Your task to perform on an android device: make emails show in primary in the gmail app Image 0: 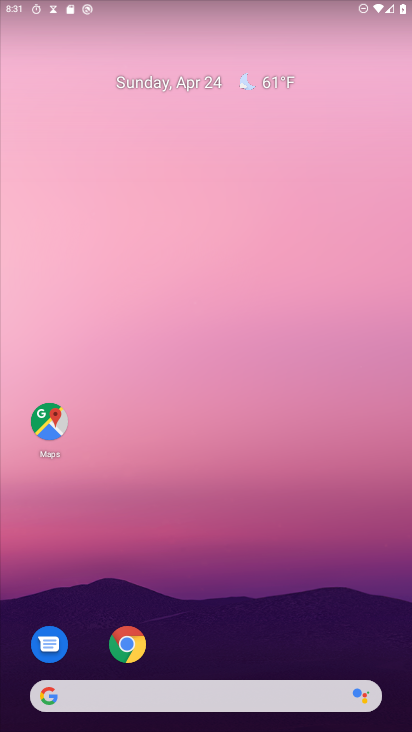
Step 0: drag from (214, 685) to (227, 133)
Your task to perform on an android device: make emails show in primary in the gmail app Image 1: 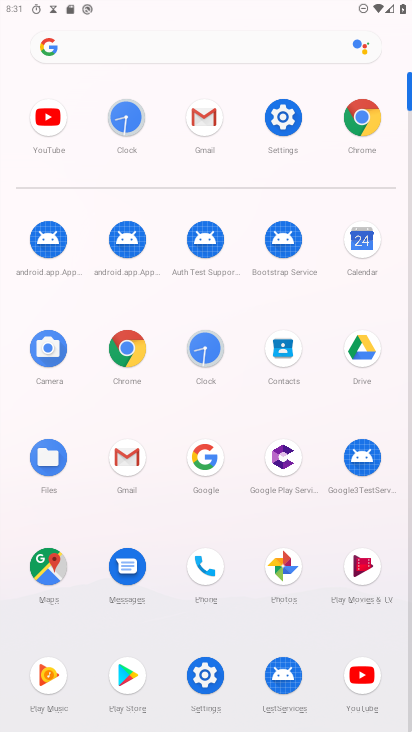
Step 1: click (136, 471)
Your task to perform on an android device: make emails show in primary in the gmail app Image 2: 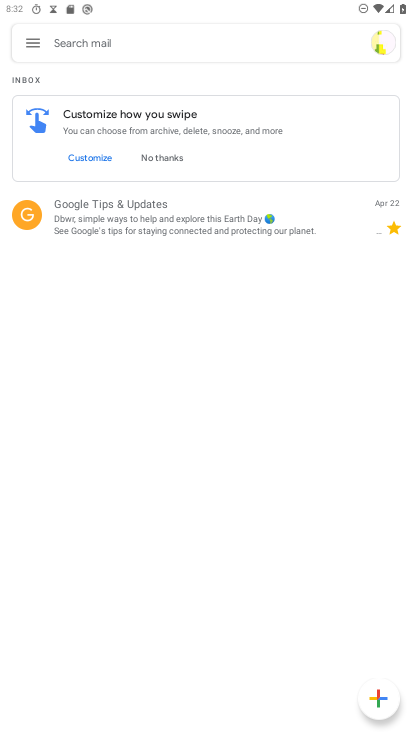
Step 2: click (31, 43)
Your task to perform on an android device: make emails show in primary in the gmail app Image 3: 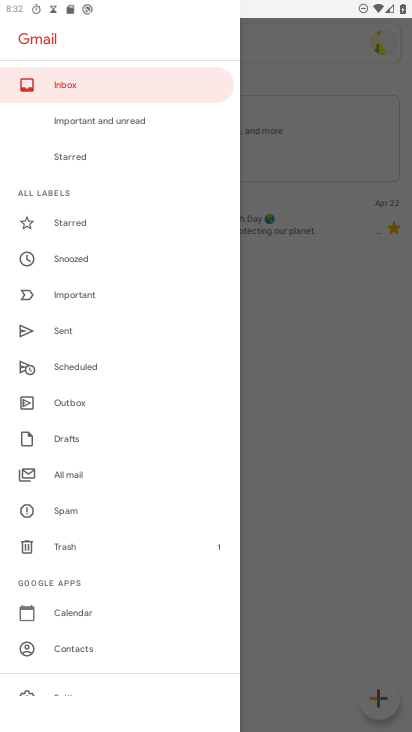
Step 3: drag from (76, 656) to (100, 152)
Your task to perform on an android device: make emails show in primary in the gmail app Image 4: 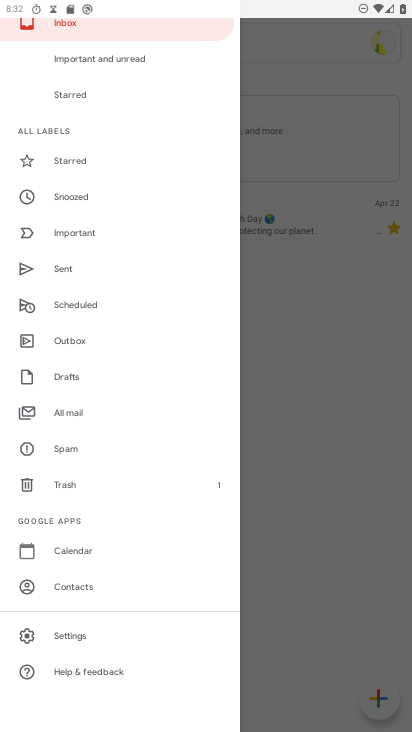
Step 4: click (59, 632)
Your task to perform on an android device: make emails show in primary in the gmail app Image 5: 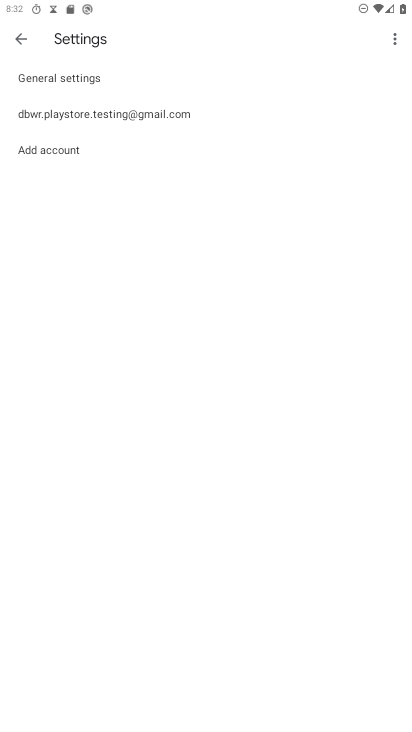
Step 5: click (118, 117)
Your task to perform on an android device: make emails show in primary in the gmail app Image 6: 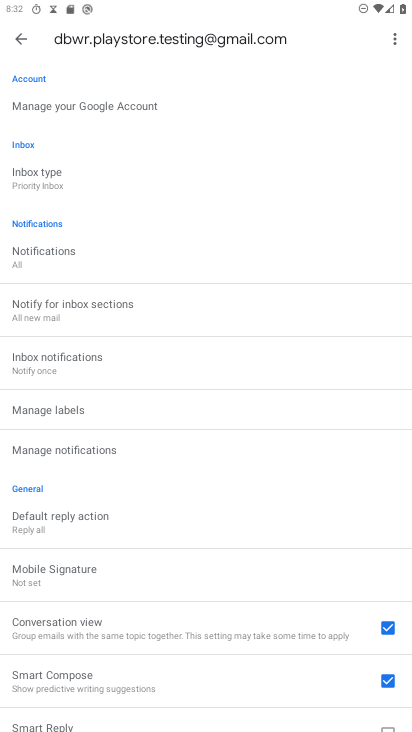
Step 6: click (64, 176)
Your task to perform on an android device: make emails show in primary in the gmail app Image 7: 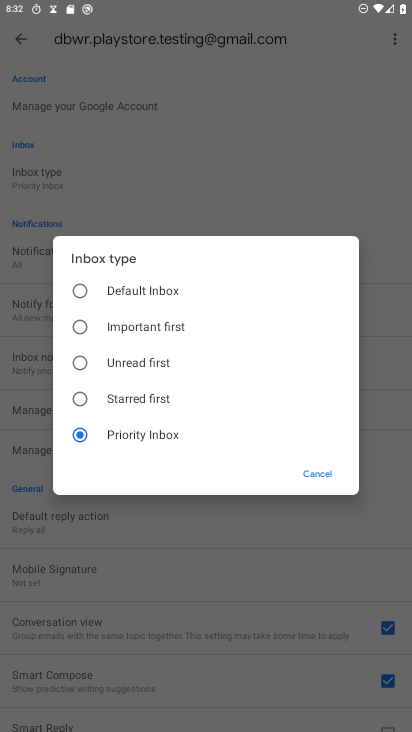
Step 7: click (116, 286)
Your task to perform on an android device: make emails show in primary in the gmail app Image 8: 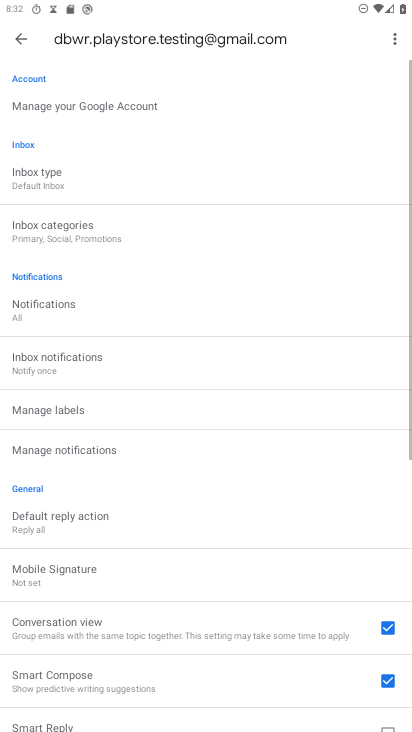
Step 8: click (67, 237)
Your task to perform on an android device: make emails show in primary in the gmail app Image 9: 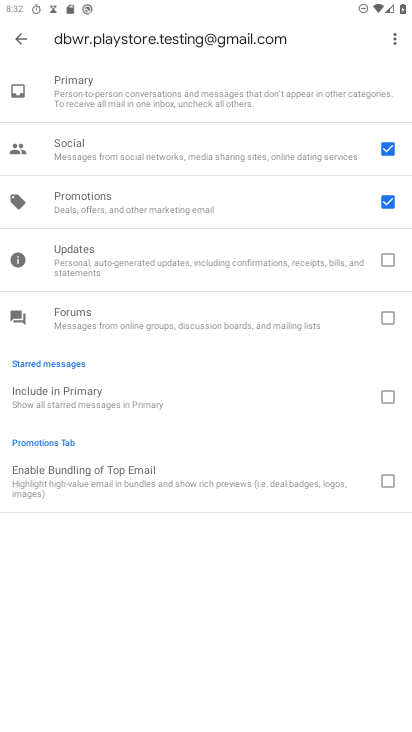
Step 9: click (388, 208)
Your task to perform on an android device: make emails show in primary in the gmail app Image 10: 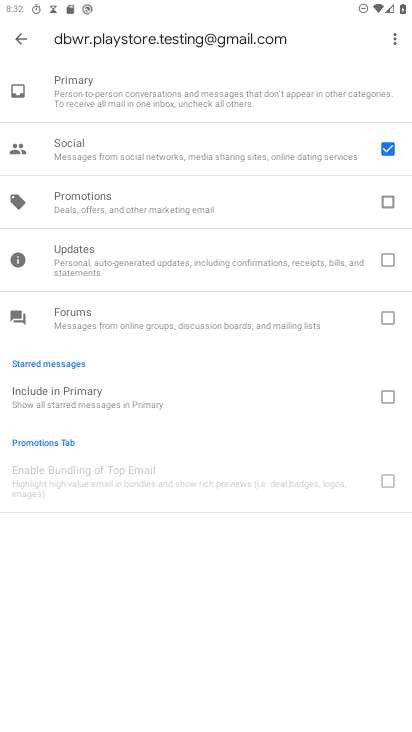
Step 10: click (385, 139)
Your task to perform on an android device: make emails show in primary in the gmail app Image 11: 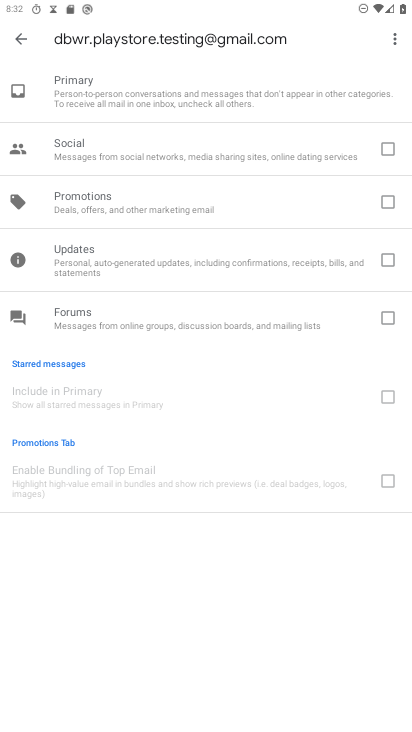
Step 11: click (211, 124)
Your task to perform on an android device: make emails show in primary in the gmail app Image 12: 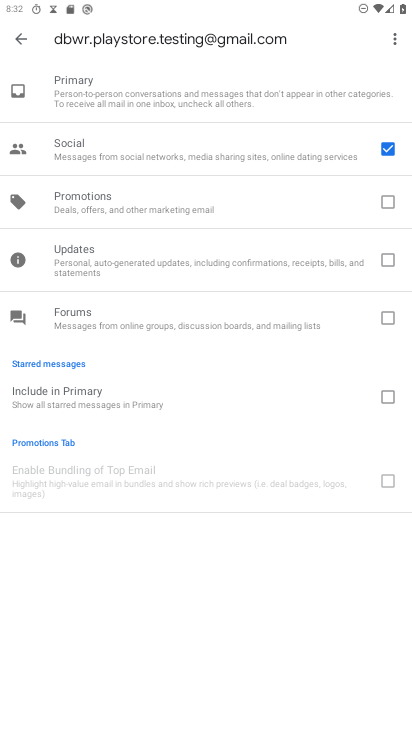
Step 12: click (223, 133)
Your task to perform on an android device: make emails show in primary in the gmail app Image 13: 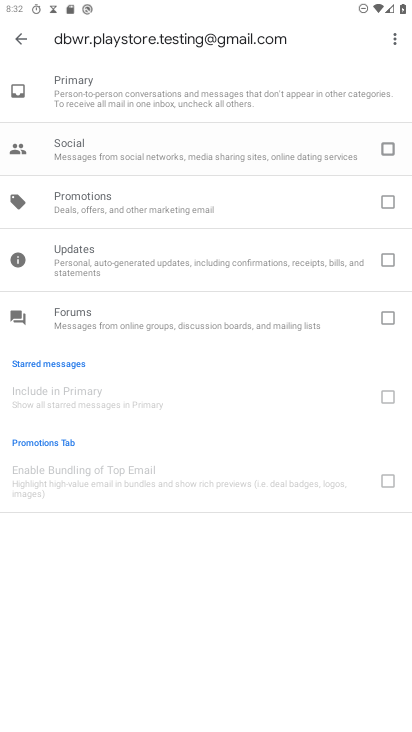
Step 13: click (191, 76)
Your task to perform on an android device: make emails show in primary in the gmail app Image 14: 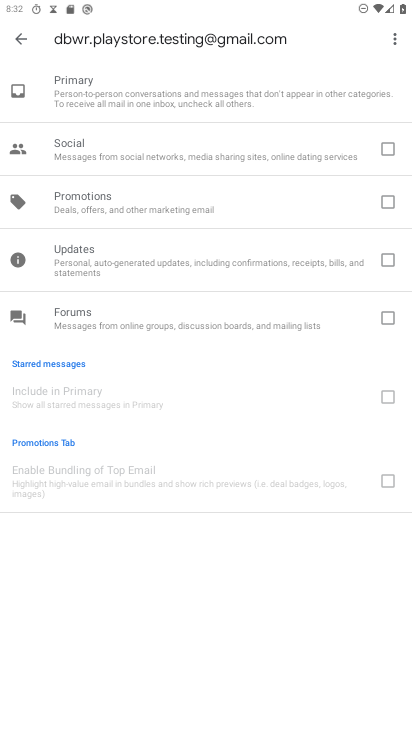
Step 14: task complete